Your task to perform on an android device: open chrome and create a bookmark for the current page Image 0: 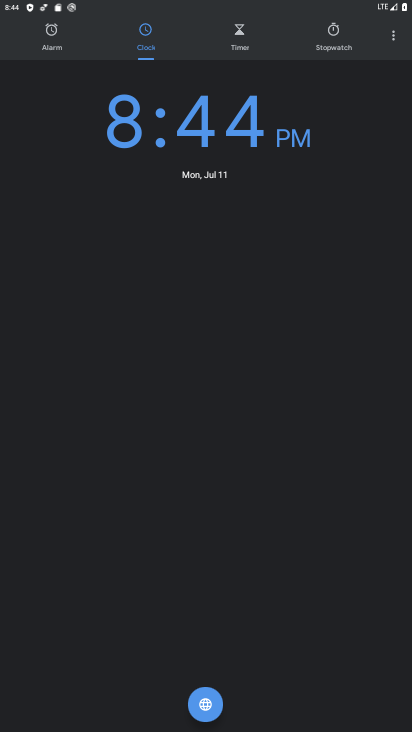
Step 0: press home button
Your task to perform on an android device: open chrome and create a bookmark for the current page Image 1: 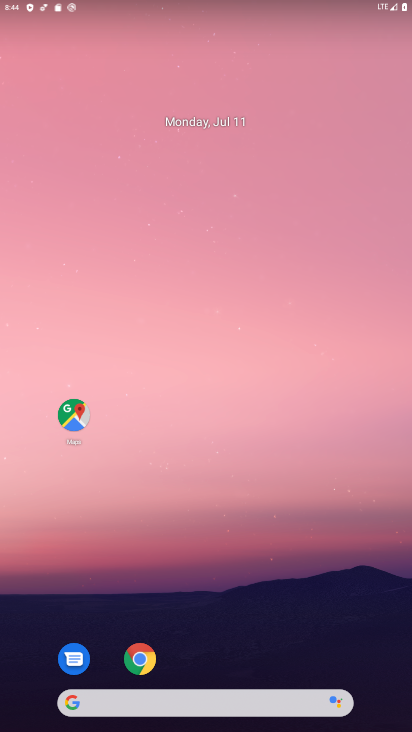
Step 1: click (130, 647)
Your task to perform on an android device: open chrome and create a bookmark for the current page Image 2: 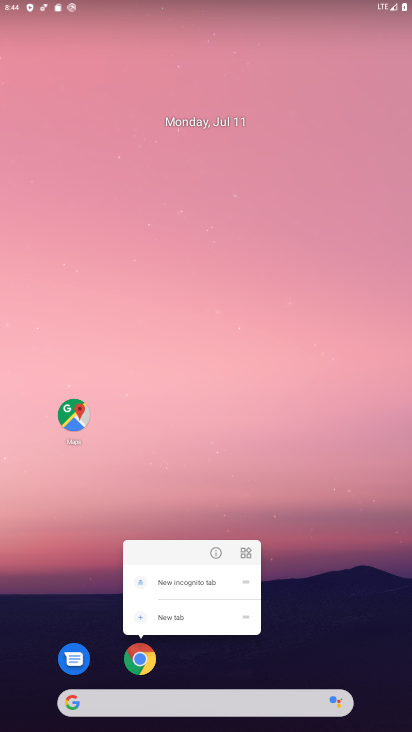
Step 2: click (143, 671)
Your task to perform on an android device: open chrome and create a bookmark for the current page Image 3: 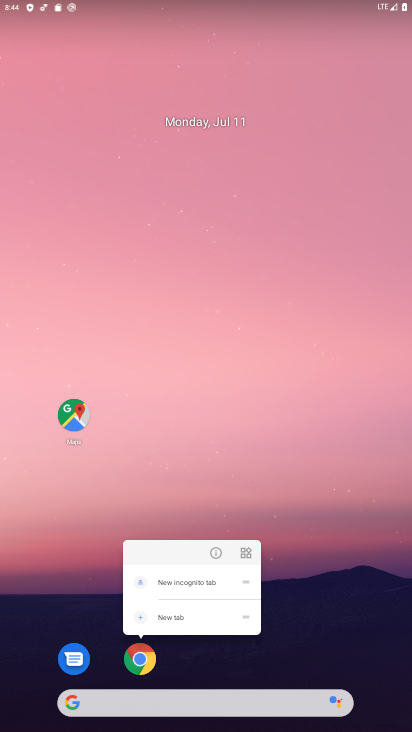
Step 3: click (123, 659)
Your task to perform on an android device: open chrome and create a bookmark for the current page Image 4: 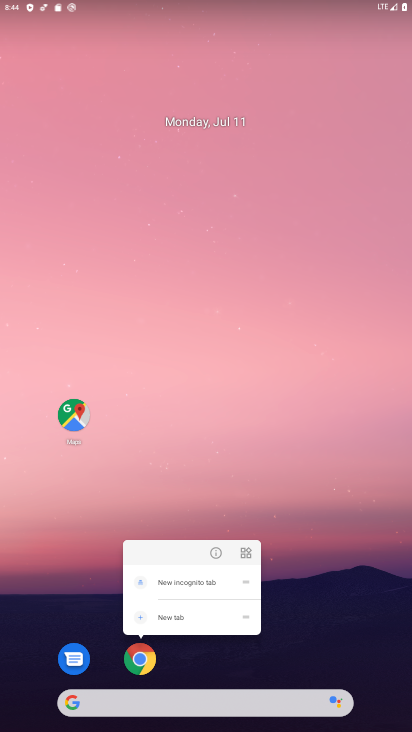
Step 4: click (166, 644)
Your task to perform on an android device: open chrome and create a bookmark for the current page Image 5: 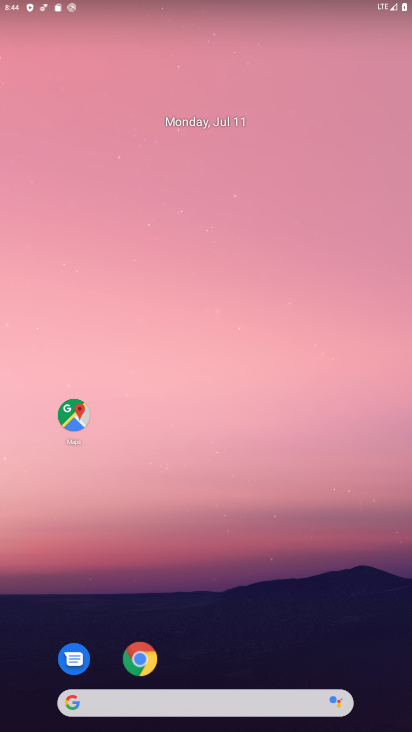
Step 5: click (157, 659)
Your task to perform on an android device: open chrome and create a bookmark for the current page Image 6: 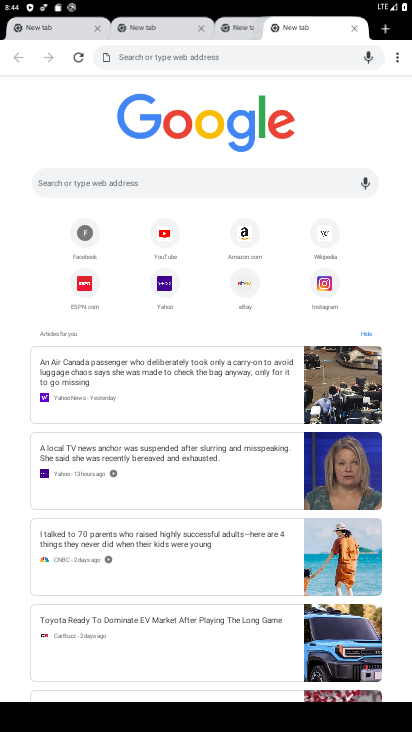
Step 6: click (393, 60)
Your task to perform on an android device: open chrome and create a bookmark for the current page Image 7: 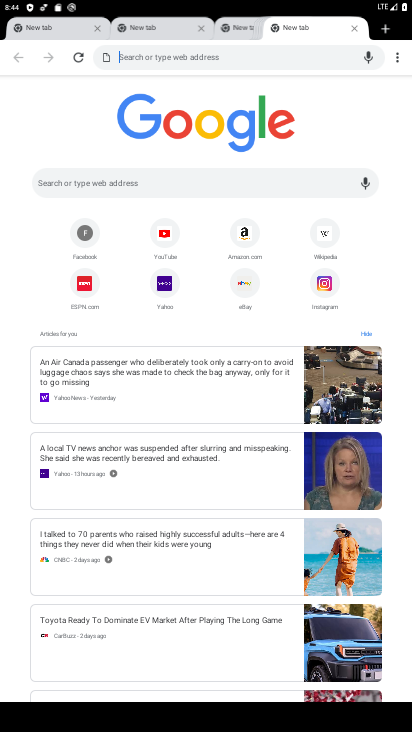
Step 7: click (392, 54)
Your task to perform on an android device: open chrome and create a bookmark for the current page Image 8: 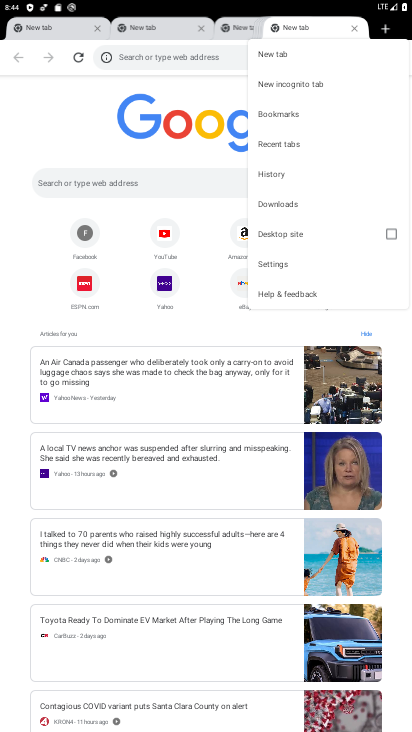
Step 8: click (277, 115)
Your task to perform on an android device: open chrome and create a bookmark for the current page Image 9: 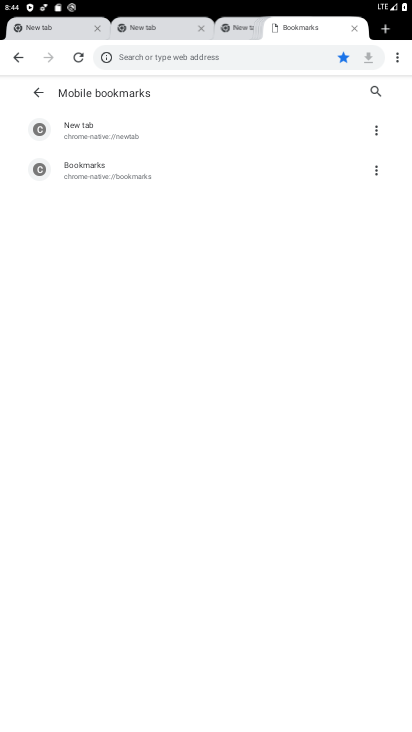
Step 9: click (345, 59)
Your task to perform on an android device: open chrome and create a bookmark for the current page Image 10: 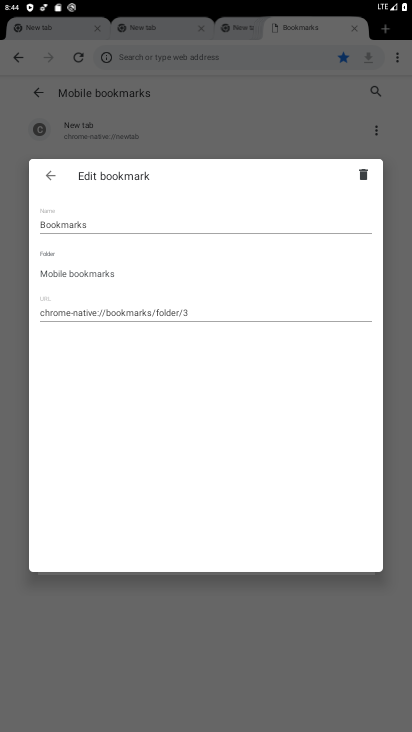
Step 10: click (252, 58)
Your task to perform on an android device: open chrome and create a bookmark for the current page Image 11: 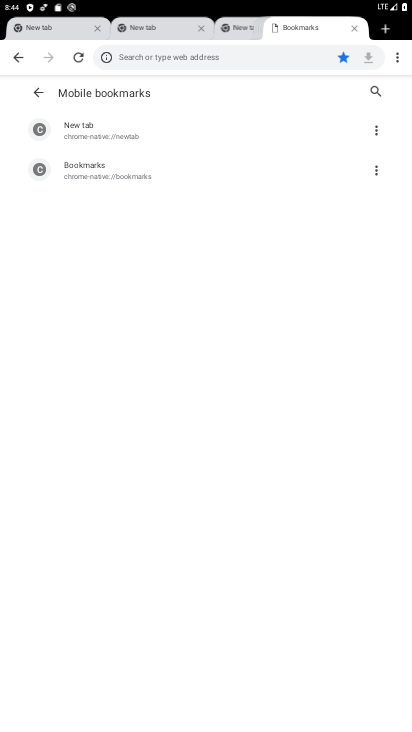
Step 11: task complete